Your task to perform on an android device: turn off location history Image 0: 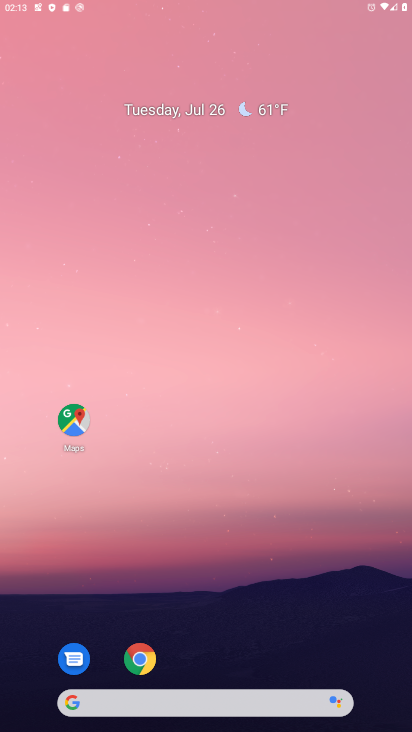
Step 0: drag from (232, 279) to (237, 105)
Your task to perform on an android device: turn off location history Image 1: 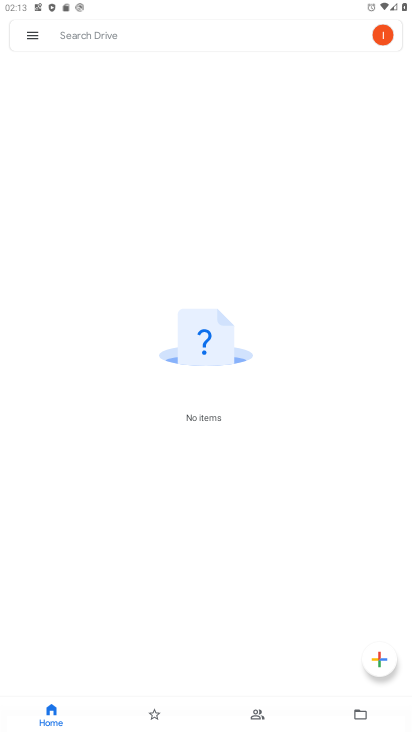
Step 1: press home button
Your task to perform on an android device: turn off location history Image 2: 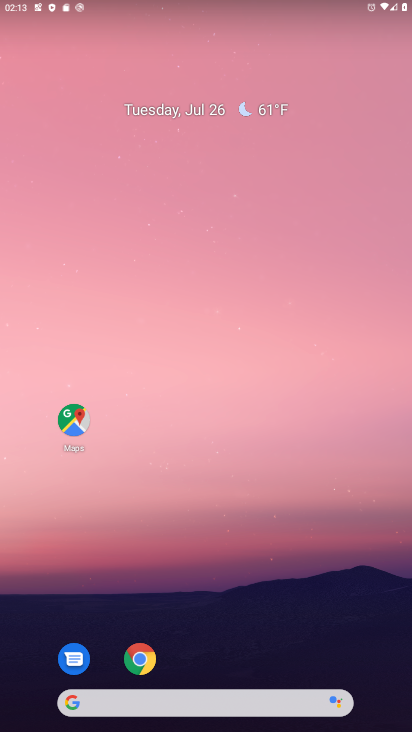
Step 2: drag from (304, 641) to (291, 327)
Your task to perform on an android device: turn off location history Image 3: 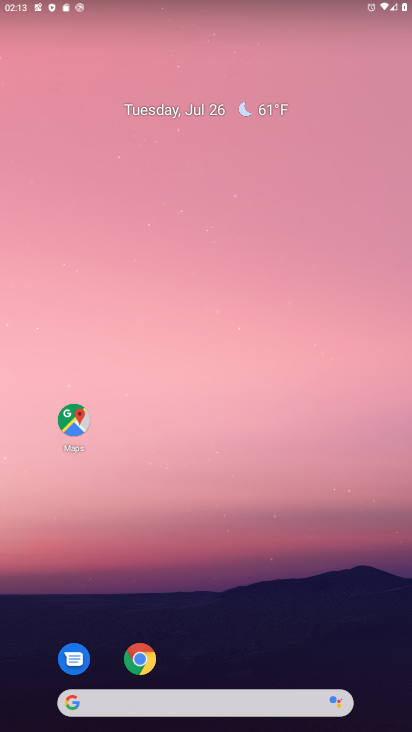
Step 3: drag from (295, 641) to (278, 91)
Your task to perform on an android device: turn off location history Image 4: 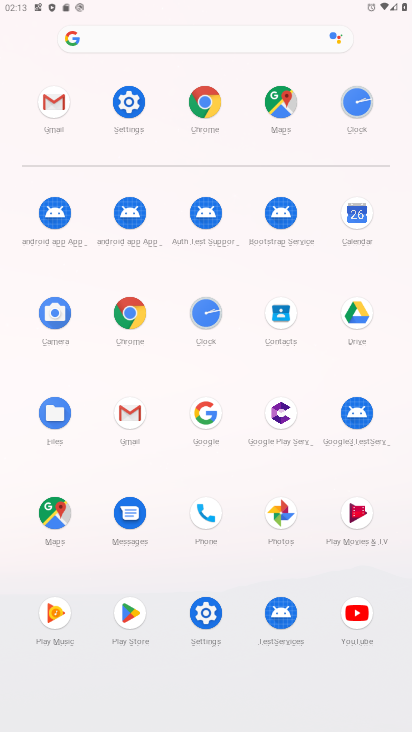
Step 4: click (132, 94)
Your task to perform on an android device: turn off location history Image 5: 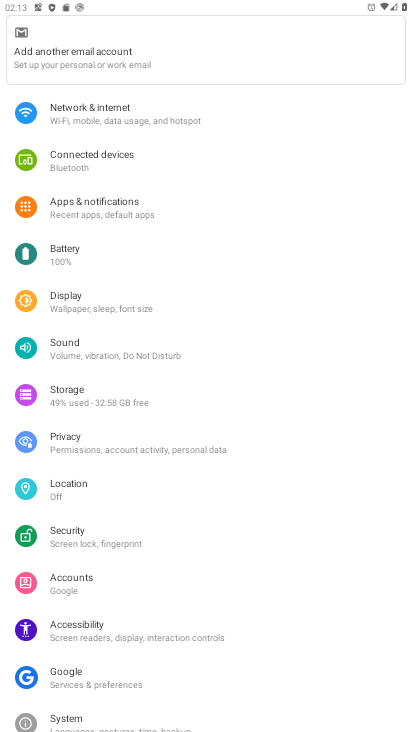
Step 5: click (63, 488)
Your task to perform on an android device: turn off location history Image 6: 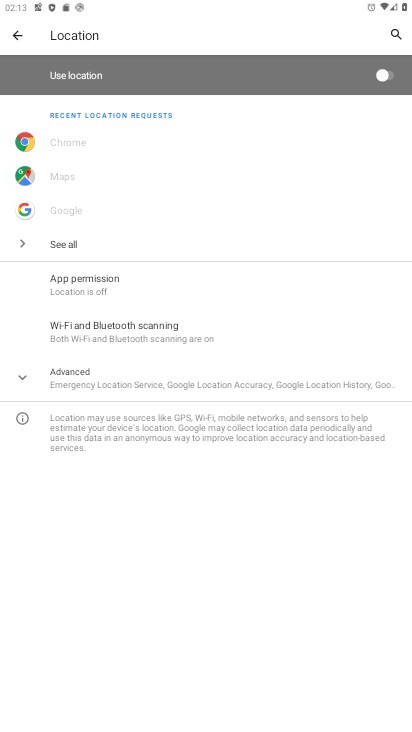
Step 6: click (130, 385)
Your task to perform on an android device: turn off location history Image 7: 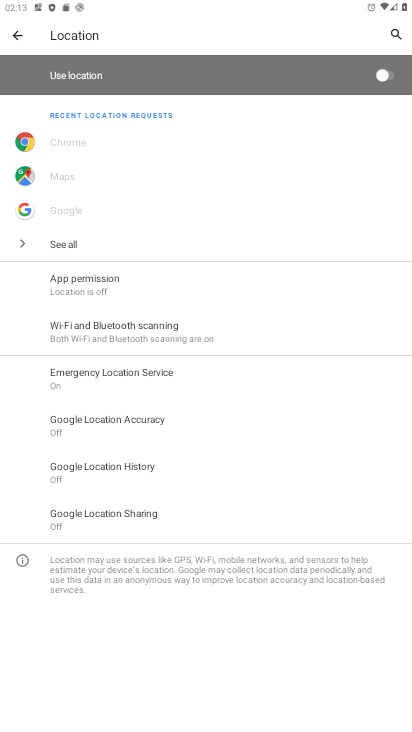
Step 7: click (135, 469)
Your task to perform on an android device: turn off location history Image 8: 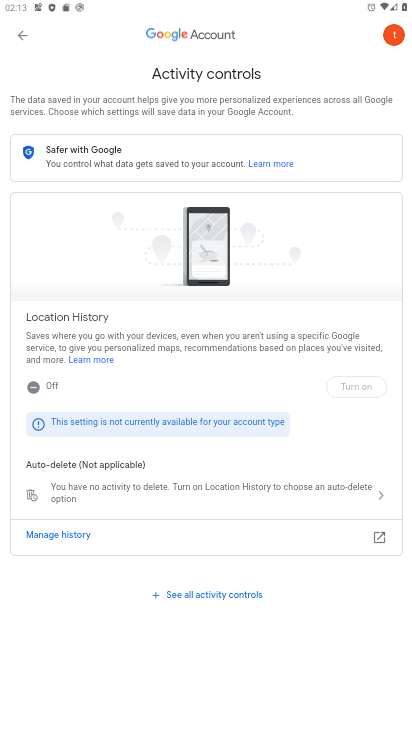
Step 8: task complete